Your task to perform on an android device: Go to network settings Image 0: 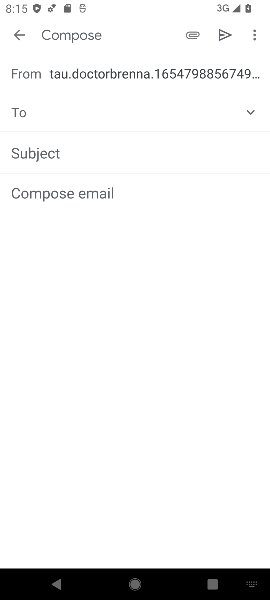
Step 0: press home button
Your task to perform on an android device: Go to network settings Image 1: 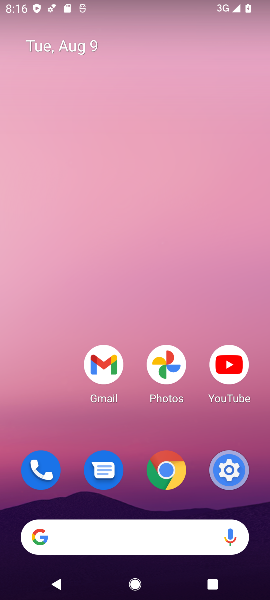
Step 1: click (229, 471)
Your task to perform on an android device: Go to network settings Image 2: 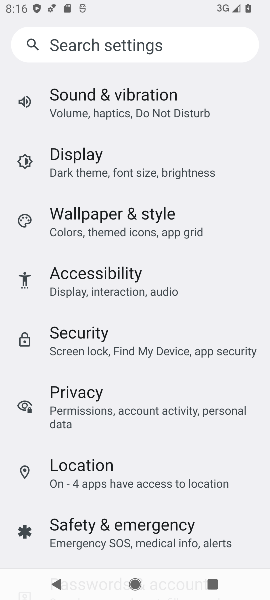
Step 2: drag from (131, 131) to (133, 231)
Your task to perform on an android device: Go to network settings Image 3: 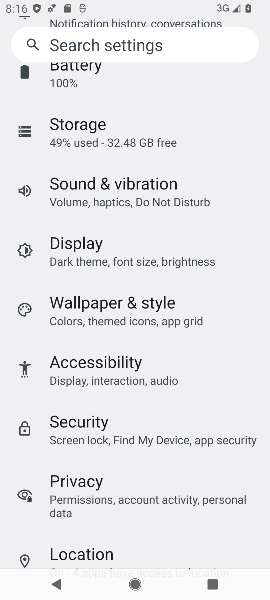
Step 3: drag from (153, 112) to (172, 243)
Your task to perform on an android device: Go to network settings Image 4: 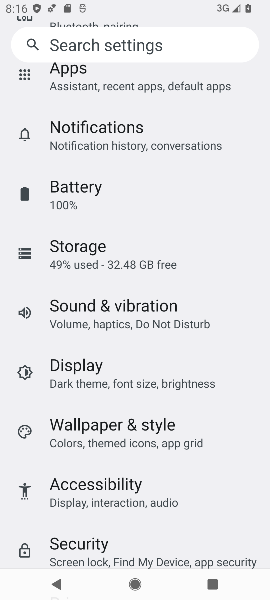
Step 4: drag from (168, 129) to (194, 244)
Your task to perform on an android device: Go to network settings Image 5: 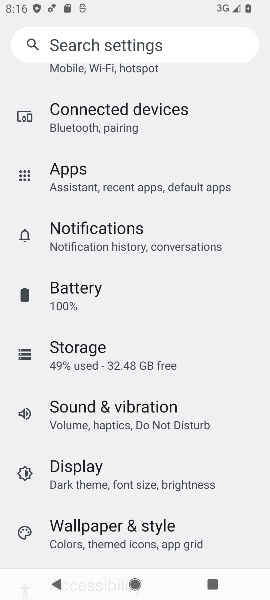
Step 5: drag from (155, 153) to (157, 291)
Your task to perform on an android device: Go to network settings Image 6: 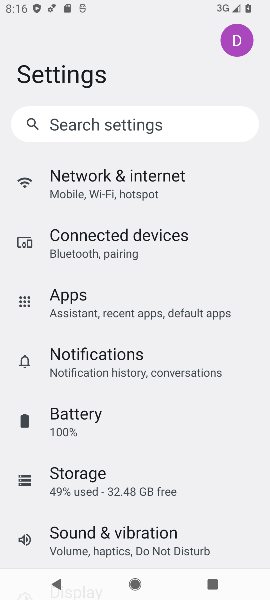
Step 6: click (144, 191)
Your task to perform on an android device: Go to network settings Image 7: 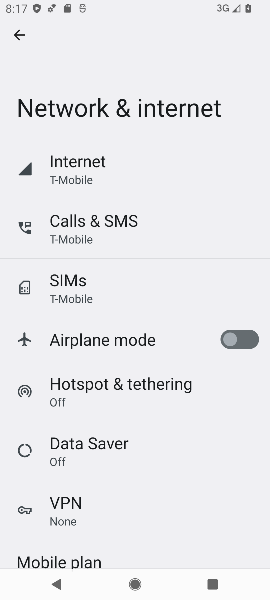
Step 7: task complete